Your task to perform on an android device: Go to privacy settings Image 0: 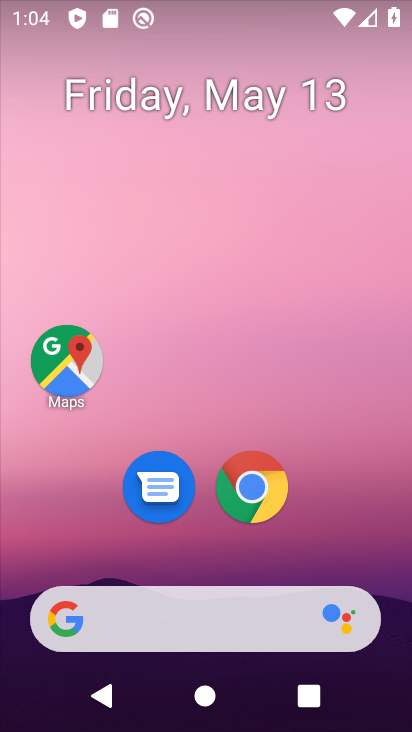
Step 0: drag from (349, 542) to (368, 135)
Your task to perform on an android device: Go to privacy settings Image 1: 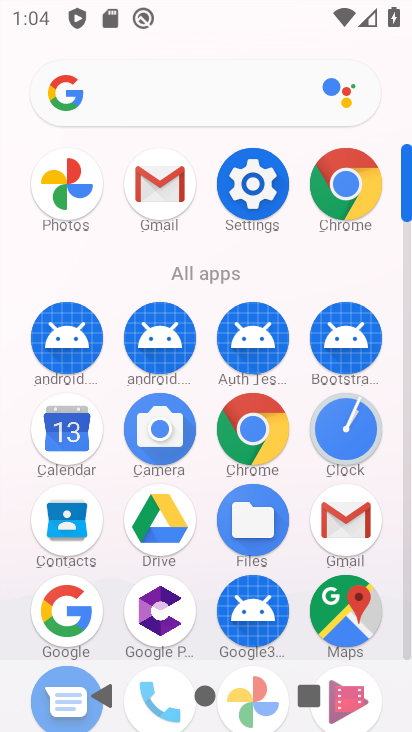
Step 1: click (258, 183)
Your task to perform on an android device: Go to privacy settings Image 2: 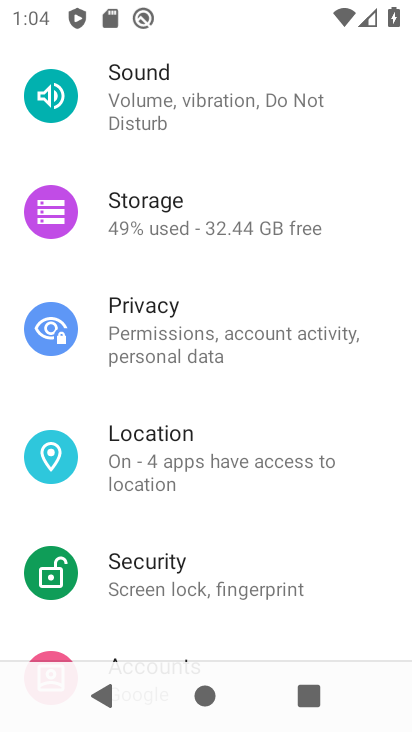
Step 2: click (207, 320)
Your task to perform on an android device: Go to privacy settings Image 3: 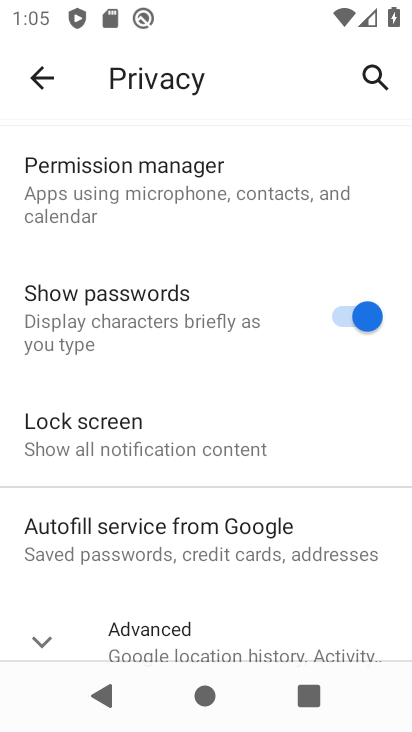
Step 3: task complete